Your task to perform on an android device: change the clock display to analog Image 0: 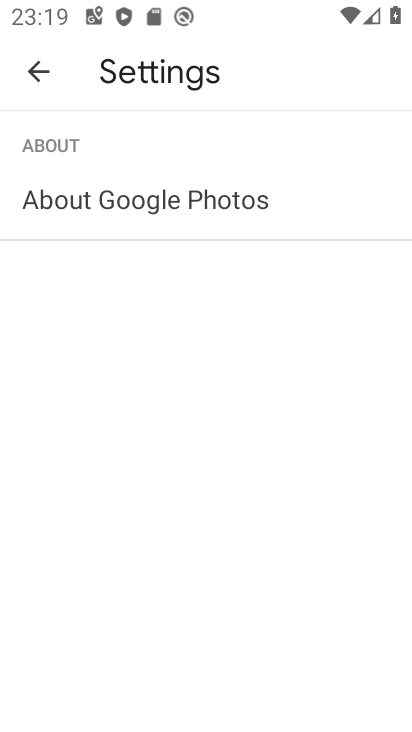
Step 0: press home button
Your task to perform on an android device: change the clock display to analog Image 1: 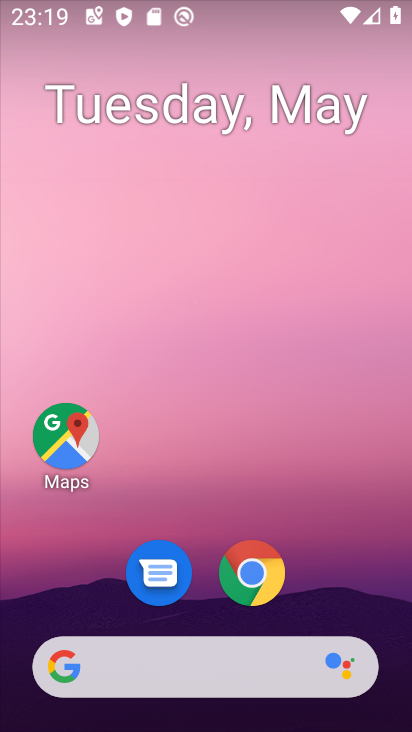
Step 1: drag from (277, 516) to (309, 208)
Your task to perform on an android device: change the clock display to analog Image 2: 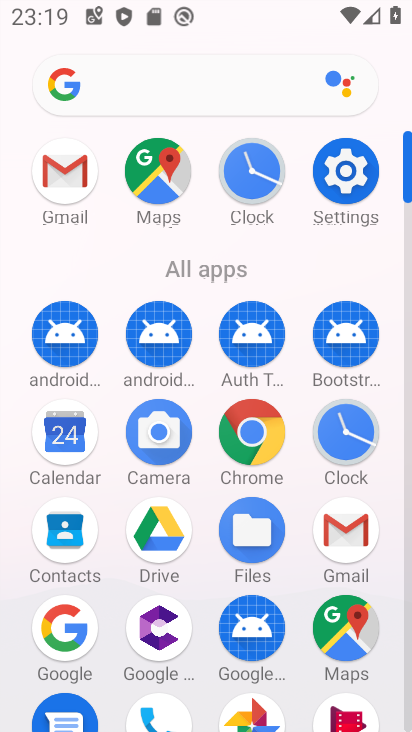
Step 2: click (338, 427)
Your task to perform on an android device: change the clock display to analog Image 3: 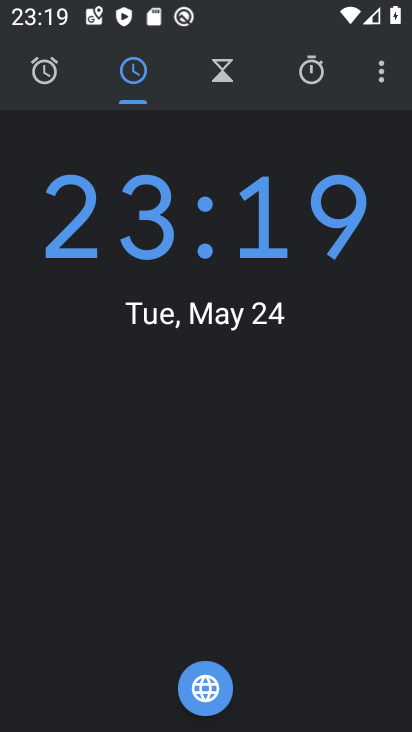
Step 3: click (377, 77)
Your task to perform on an android device: change the clock display to analog Image 4: 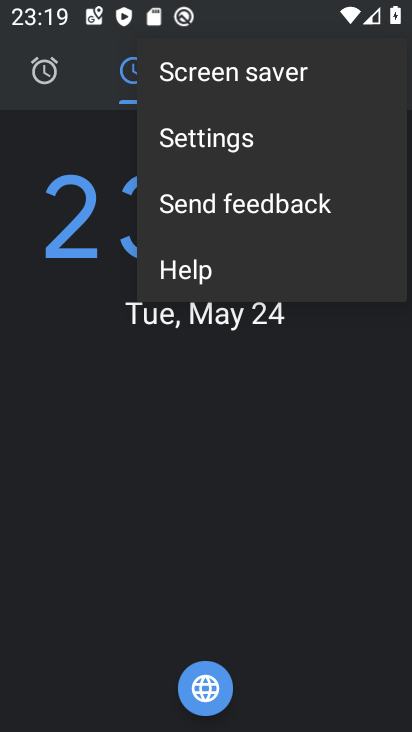
Step 4: click (248, 133)
Your task to perform on an android device: change the clock display to analog Image 5: 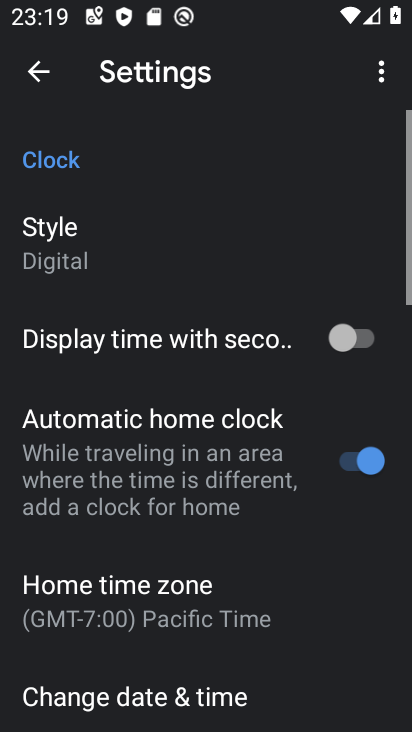
Step 5: click (127, 222)
Your task to perform on an android device: change the clock display to analog Image 6: 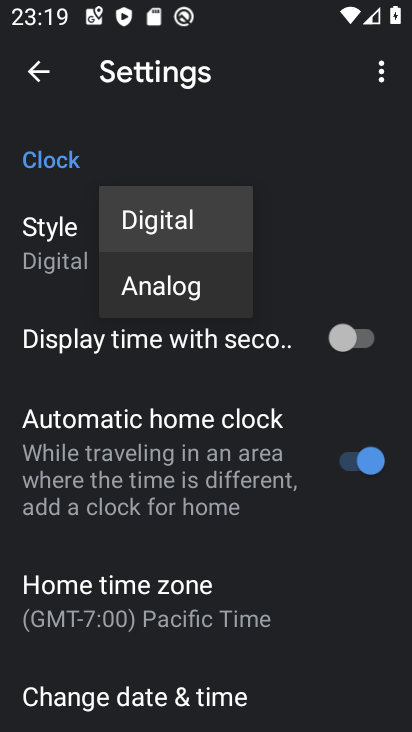
Step 6: click (178, 304)
Your task to perform on an android device: change the clock display to analog Image 7: 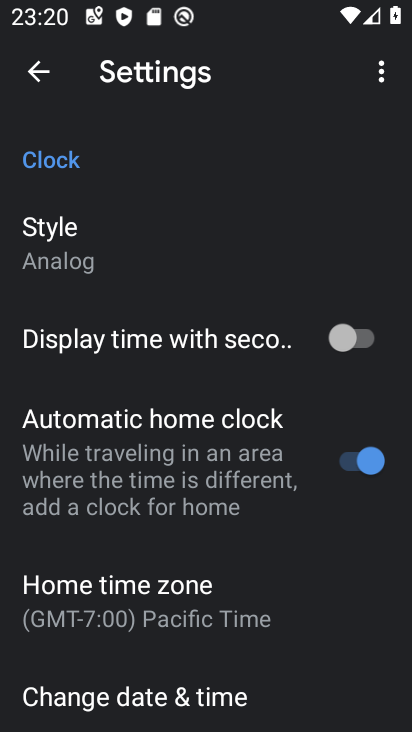
Step 7: task complete